Your task to perform on an android device: open app "PUBG MOBILE" Image 0: 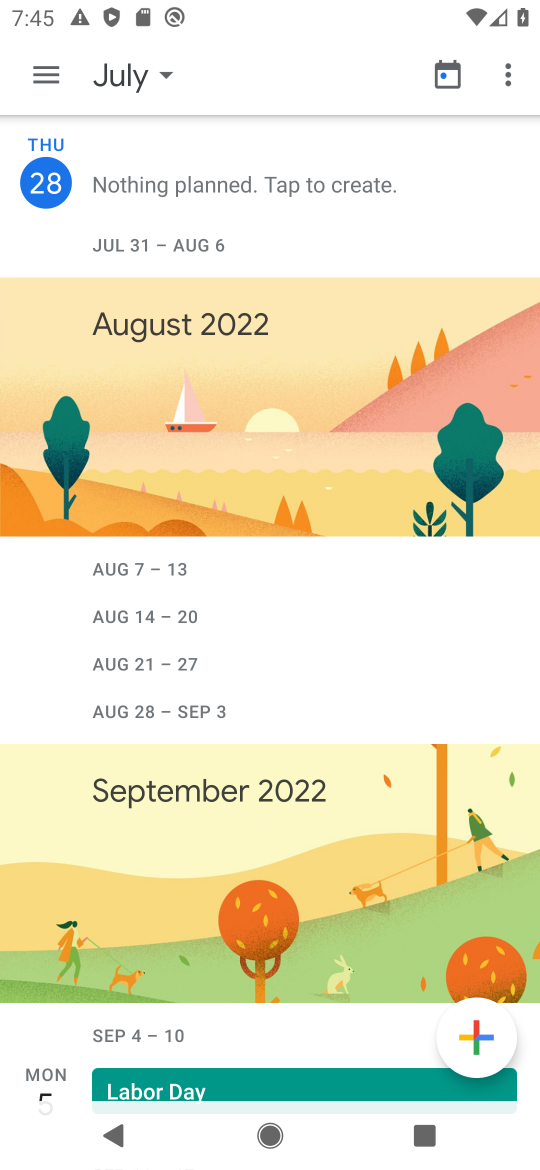
Step 0: press home button
Your task to perform on an android device: open app "PUBG MOBILE" Image 1: 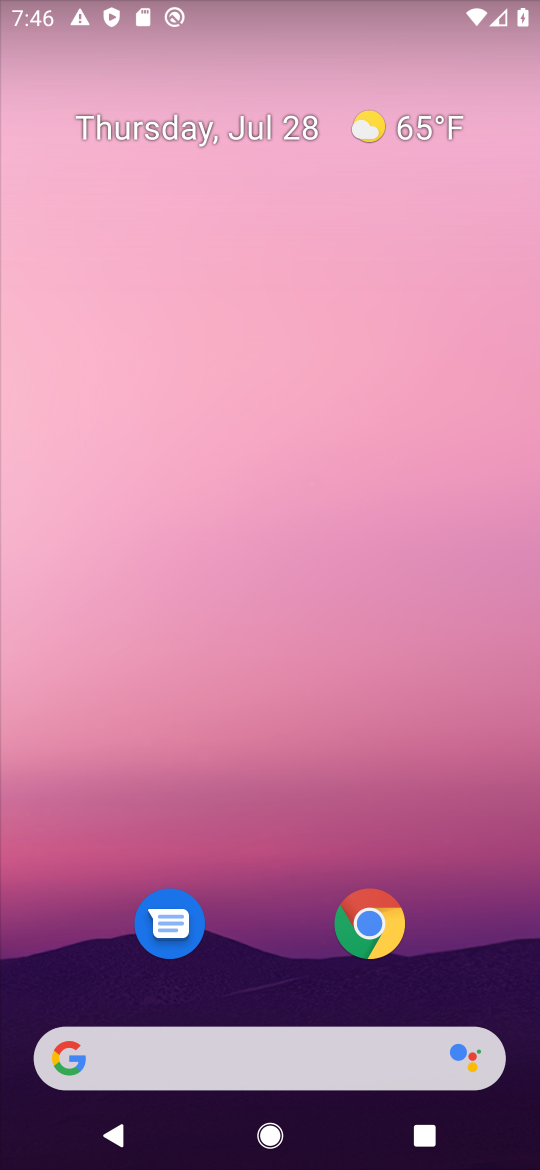
Step 1: drag from (496, 940) to (418, 126)
Your task to perform on an android device: open app "PUBG MOBILE" Image 2: 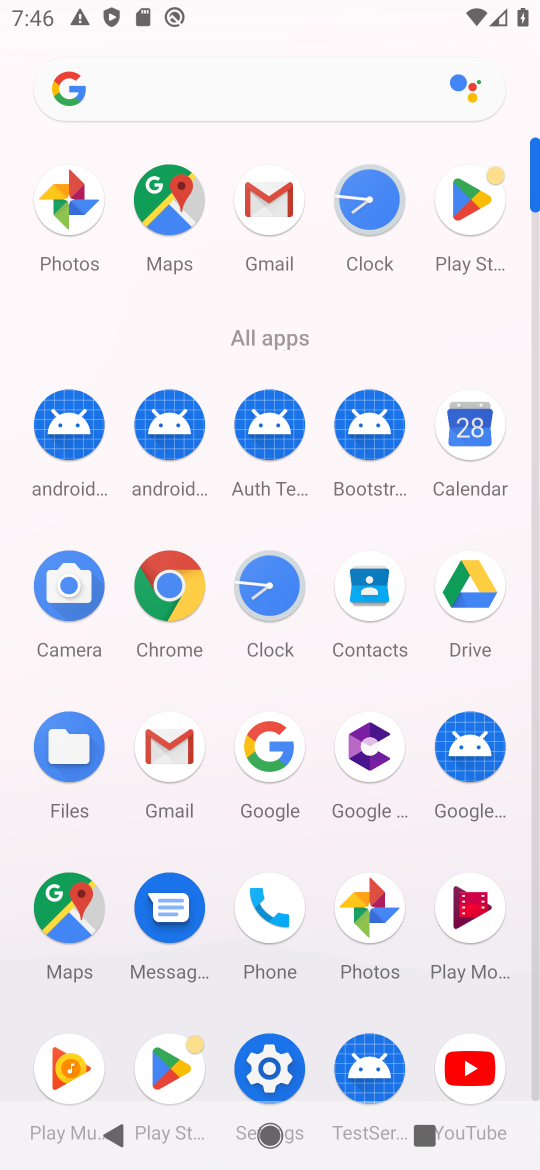
Step 2: click (181, 1058)
Your task to perform on an android device: open app "PUBG MOBILE" Image 3: 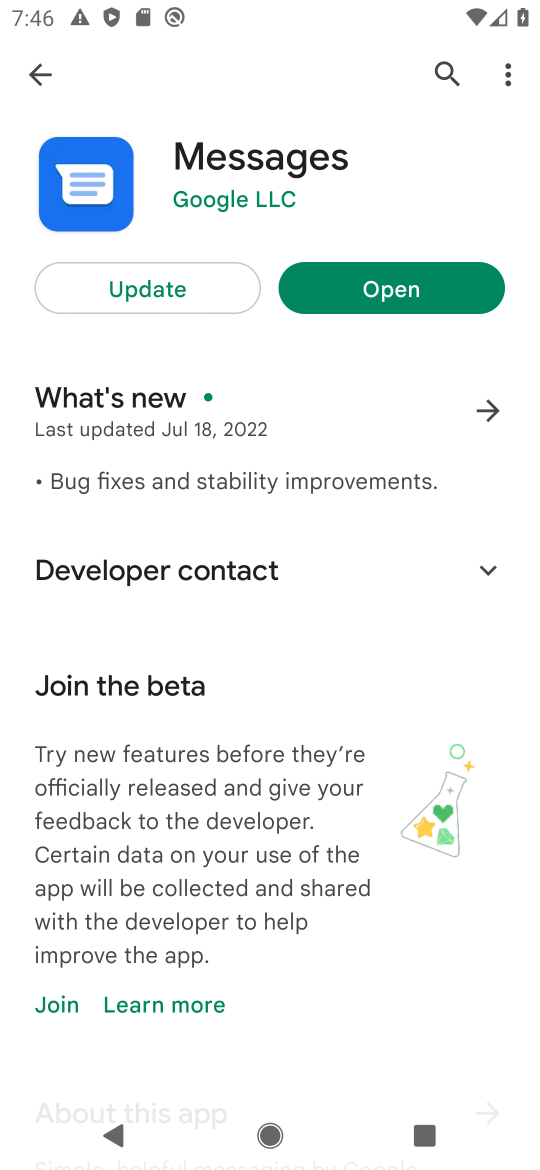
Step 3: click (453, 66)
Your task to perform on an android device: open app "PUBG MOBILE" Image 4: 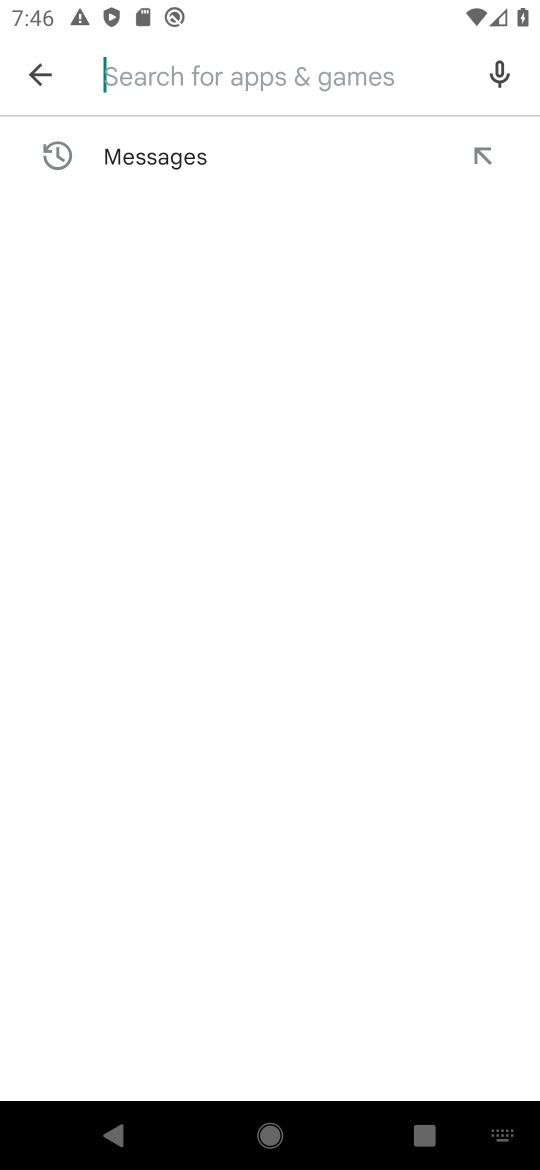
Step 4: type "PUBG MOBILE"
Your task to perform on an android device: open app "PUBG MOBILE" Image 5: 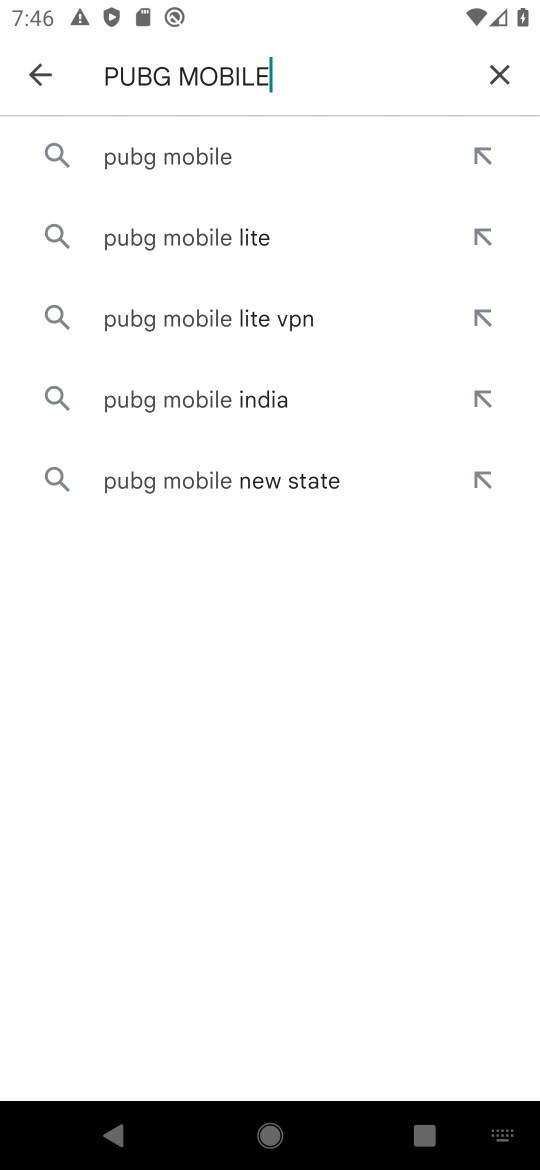
Step 5: press enter
Your task to perform on an android device: open app "PUBG MOBILE" Image 6: 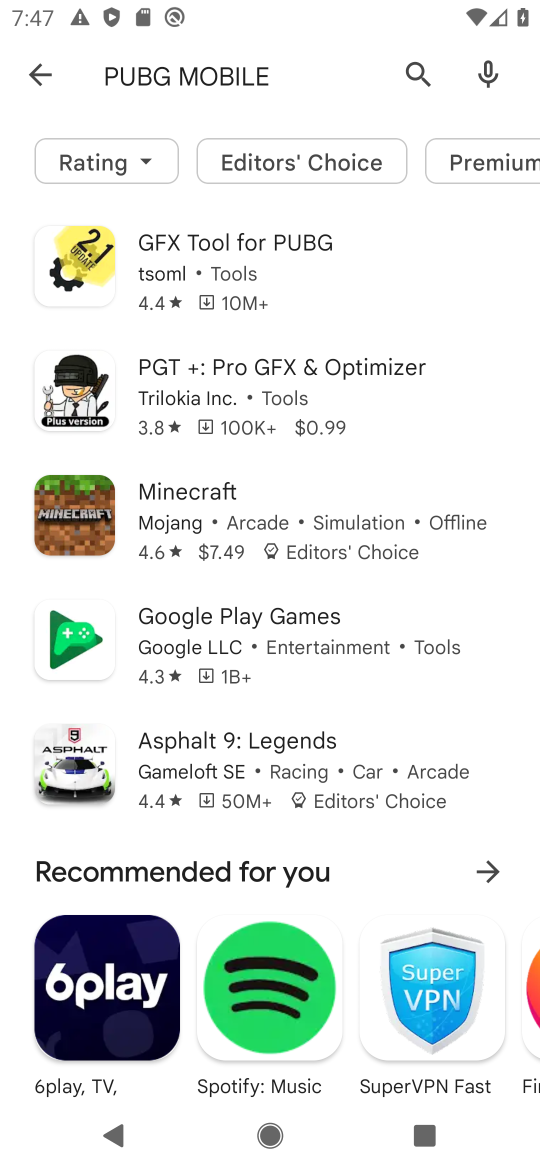
Step 6: task complete